Your task to perform on an android device: What's the weather going to be this weekend? Image 0: 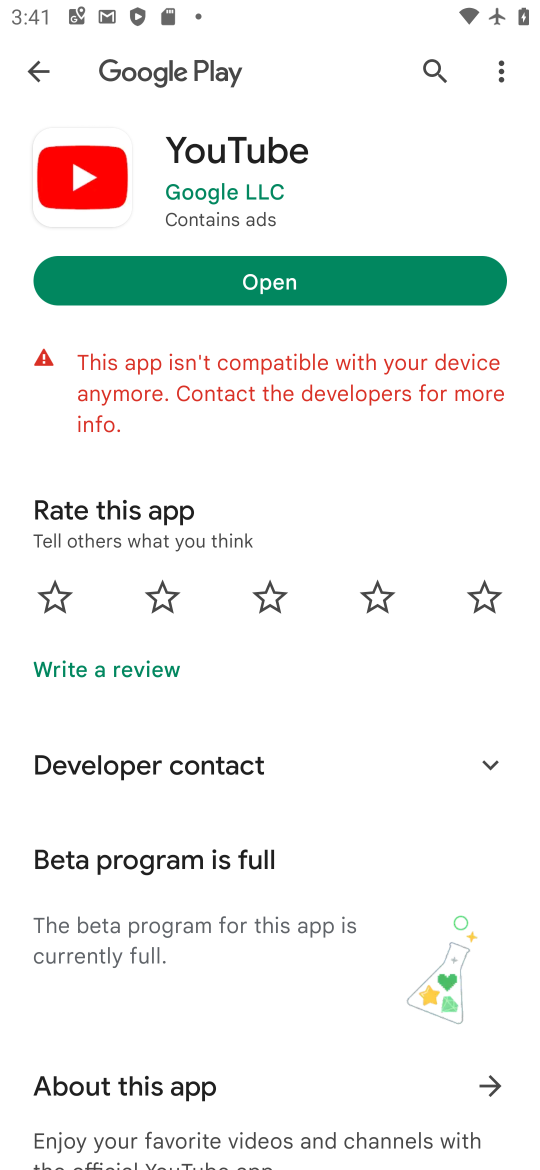
Step 0: press home button
Your task to perform on an android device: What's the weather going to be this weekend? Image 1: 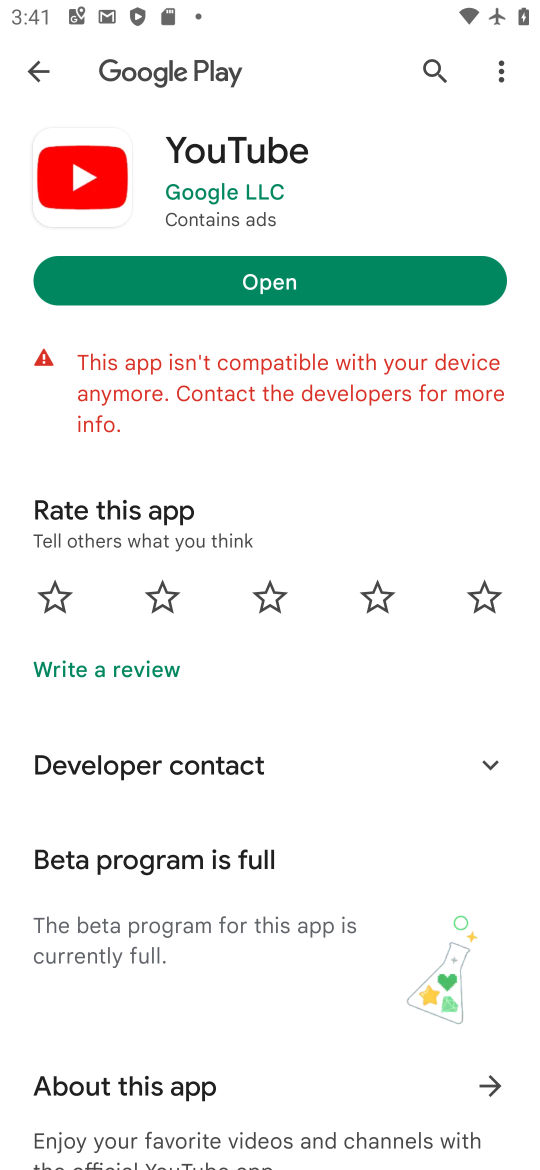
Step 1: press home button
Your task to perform on an android device: What's the weather going to be this weekend? Image 2: 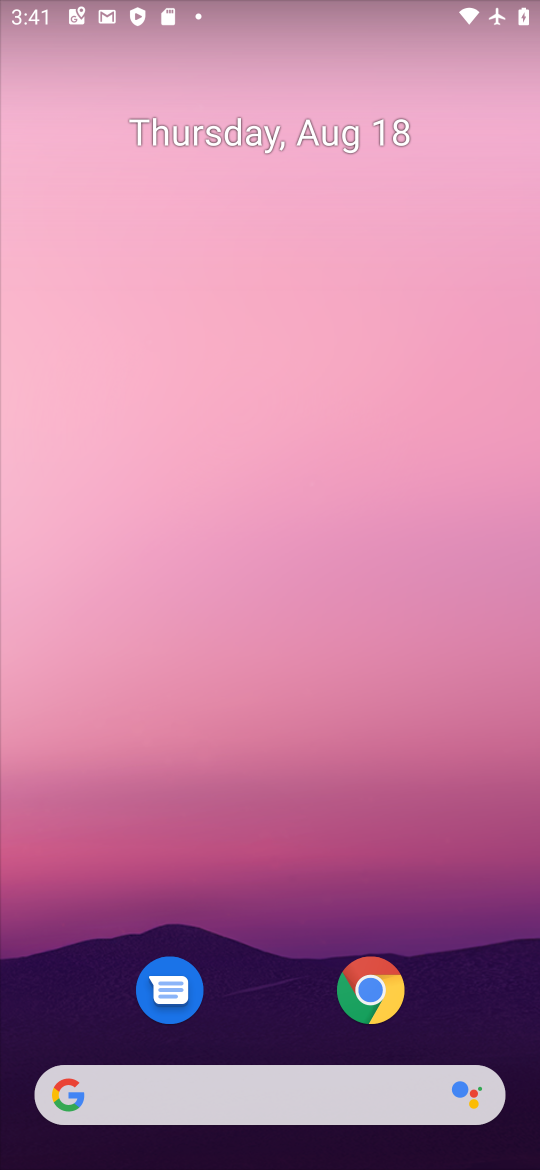
Step 2: drag from (321, 643) to (373, 0)
Your task to perform on an android device: What's the weather going to be this weekend? Image 3: 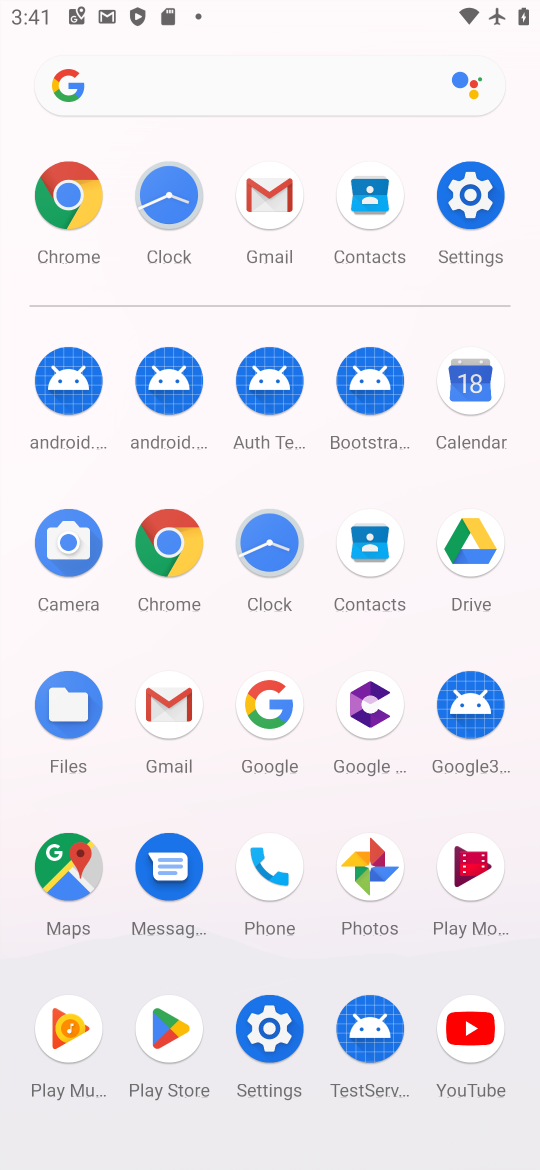
Step 3: click (160, 541)
Your task to perform on an android device: What's the weather going to be this weekend? Image 4: 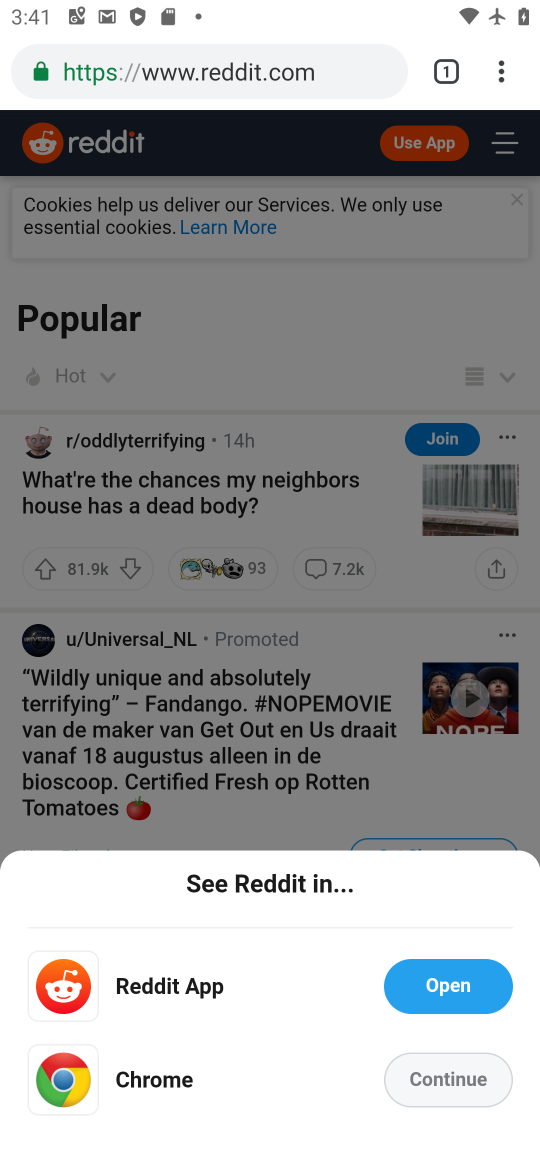
Step 4: click (297, 58)
Your task to perform on an android device: What's the weather going to be this weekend? Image 5: 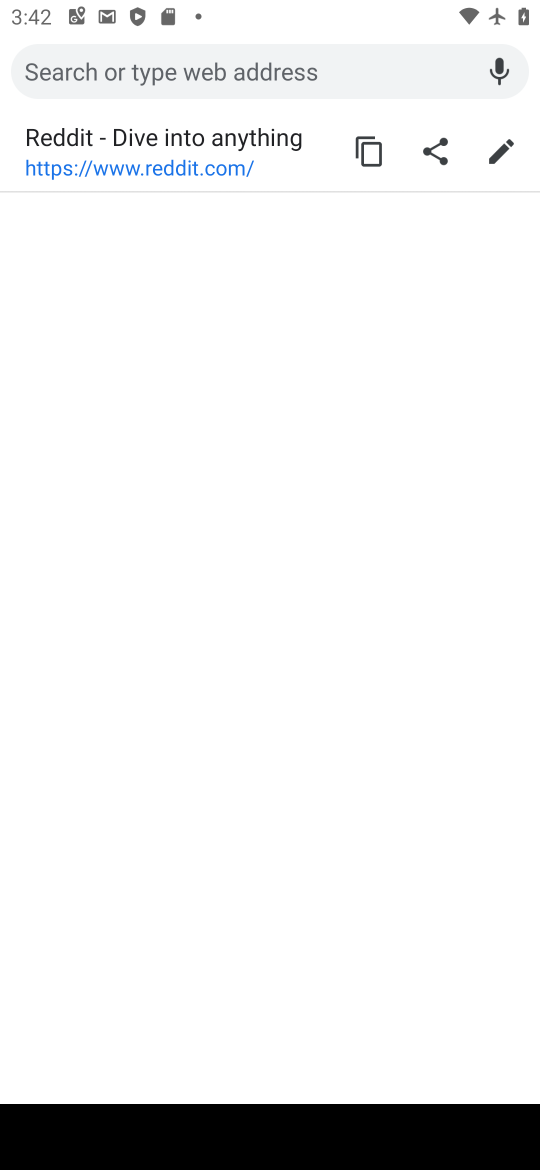
Step 5: type "weather"
Your task to perform on an android device: What's the weather going to be this weekend? Image 6: 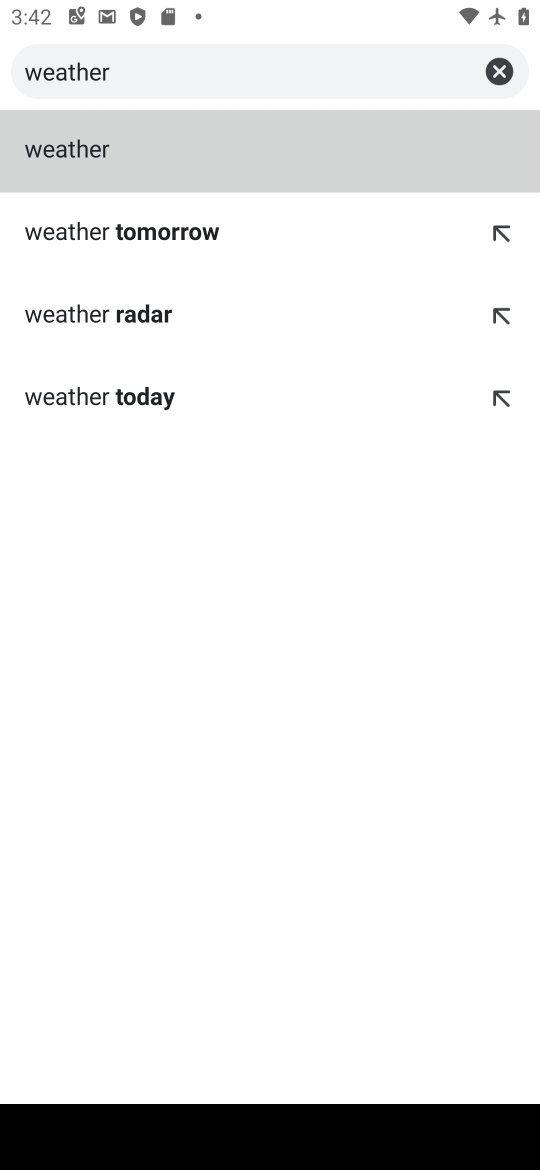
Step 6: click (50, 142)
Your task to perform on an android device: What's the weather going to be this weekend? Image 7: 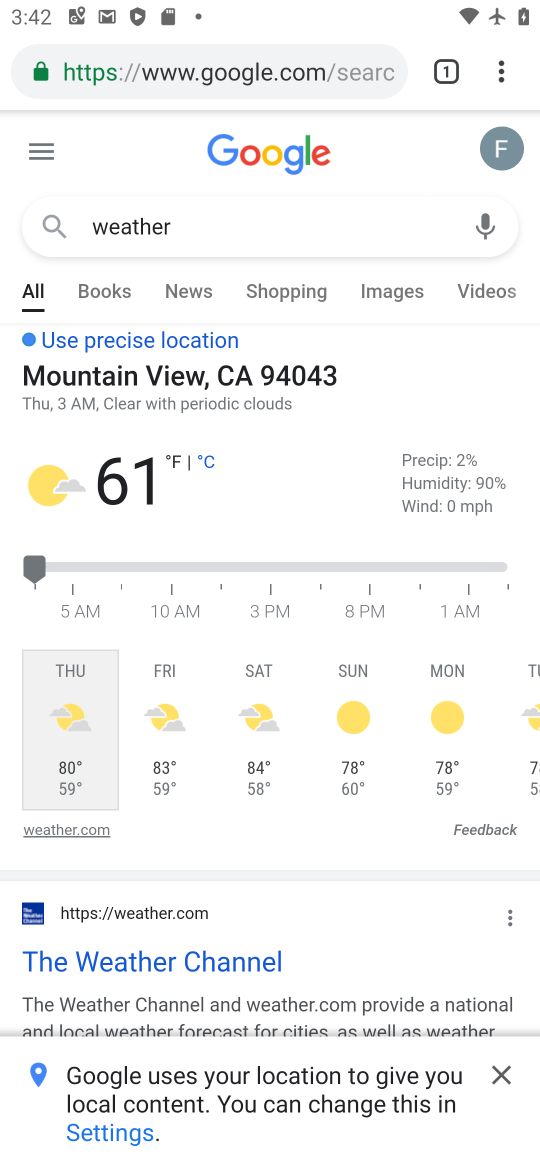
Step 7: click (247, 716)
Your task to perform on an android device: What's the weather going to be this weekend? Image 8: 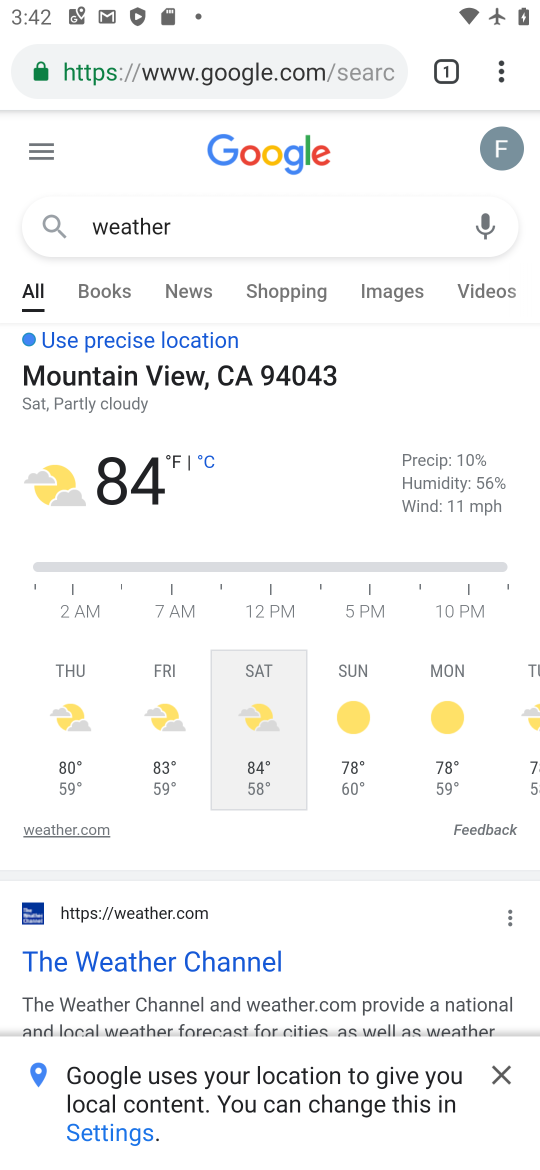
Step 8: task complete